Your task to perform on an android device: Search for "razer naga" on target, select the first entry, add it to the cart, then select checkout. Image 0: 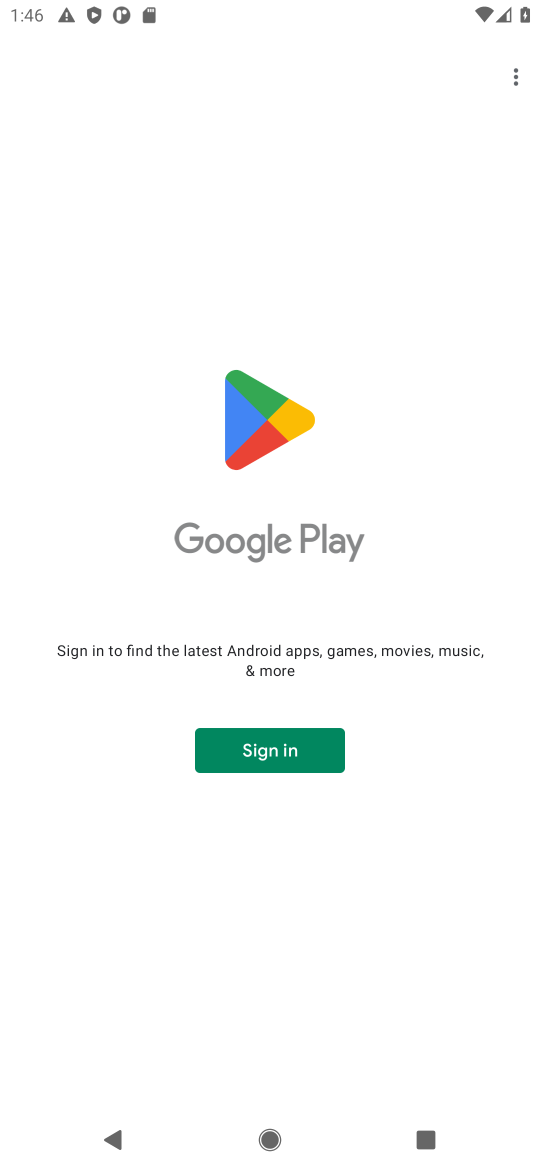
Step 0: press home button
Your task to perform on an android device: Search for "razer naga" on target, select the first entry, add it to the cart, then select checkout. Image 1: 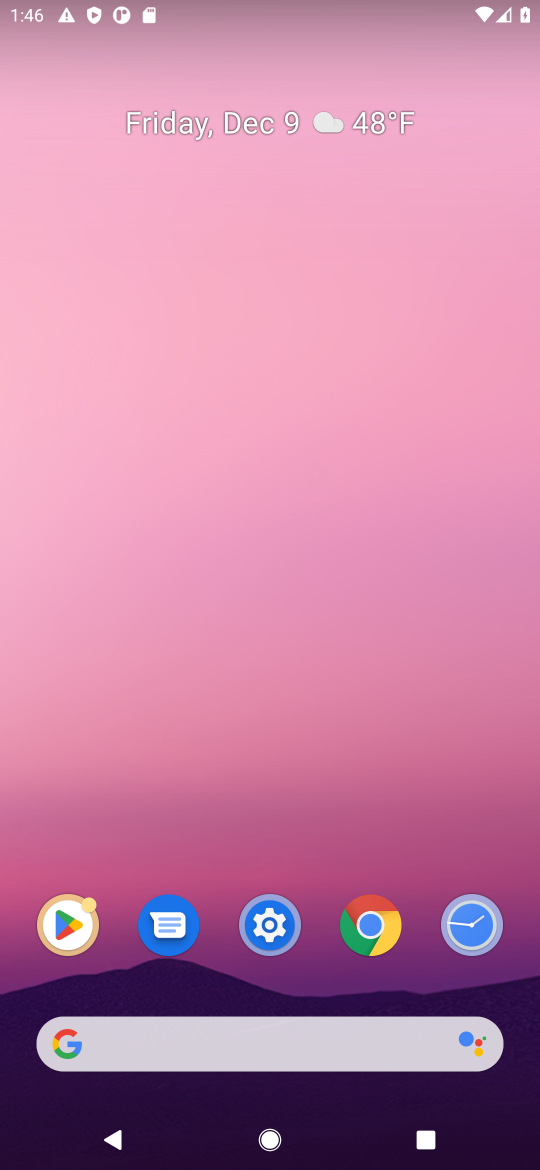
Step 1: click (190, 1026)
Your task to perform on an android device: Search for "razer naga" on target, select the first entry, add it to the cart, then select checkout. Image 2: 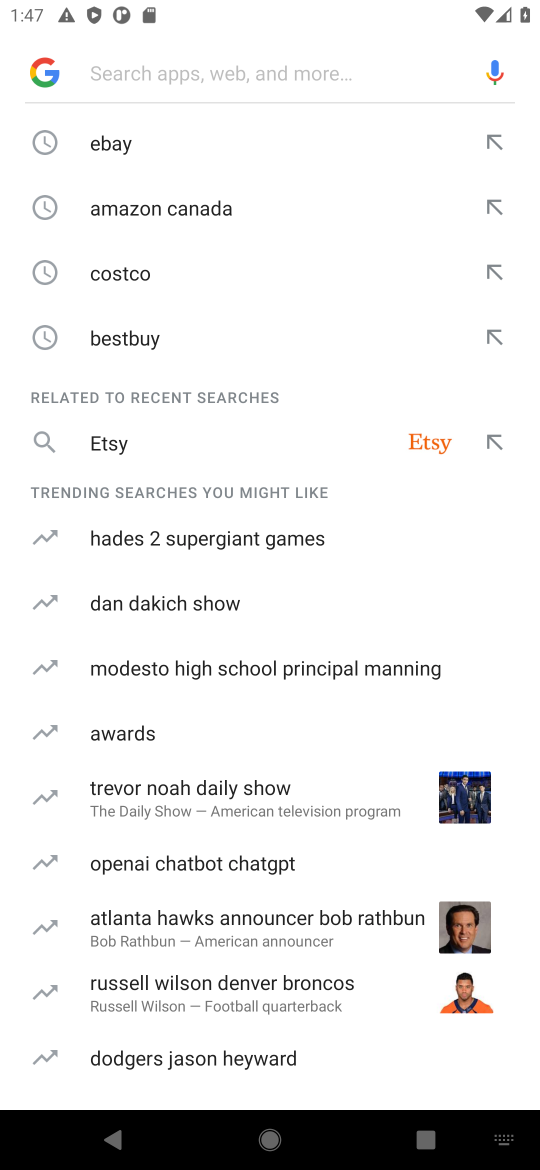
Step 2: type "target"
Your task to perform on an android device: Search for "razer naga" on target, select the first entry, add it to the cart, then select checkout. Image 3: 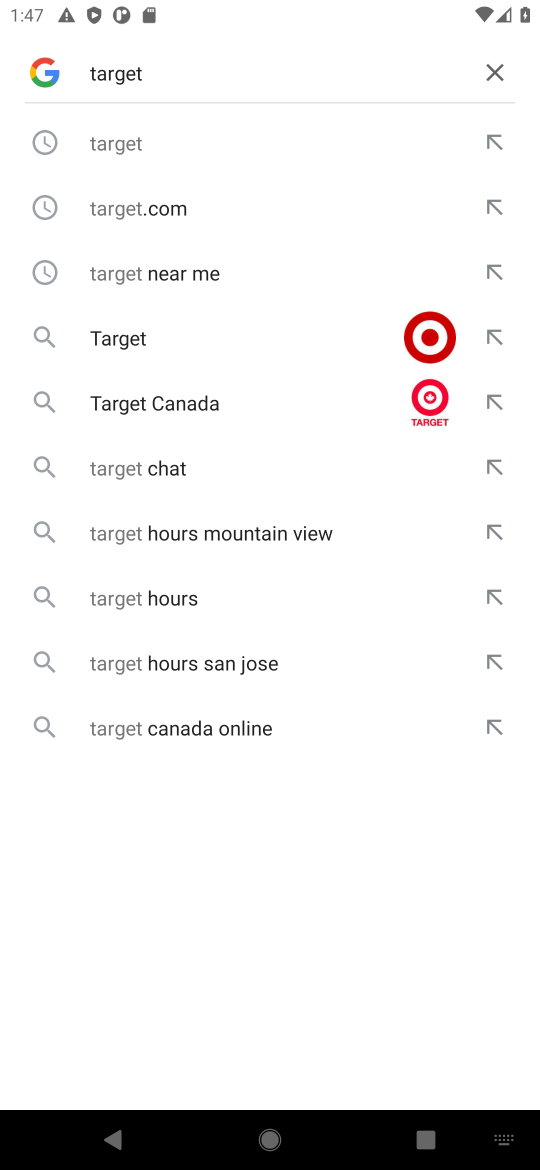
Step 3: click (182, 135)
Your task to perform on an android device: Search for "razer naga" on target, select the first entry, add it to the cart, then select checkout. Image 4: 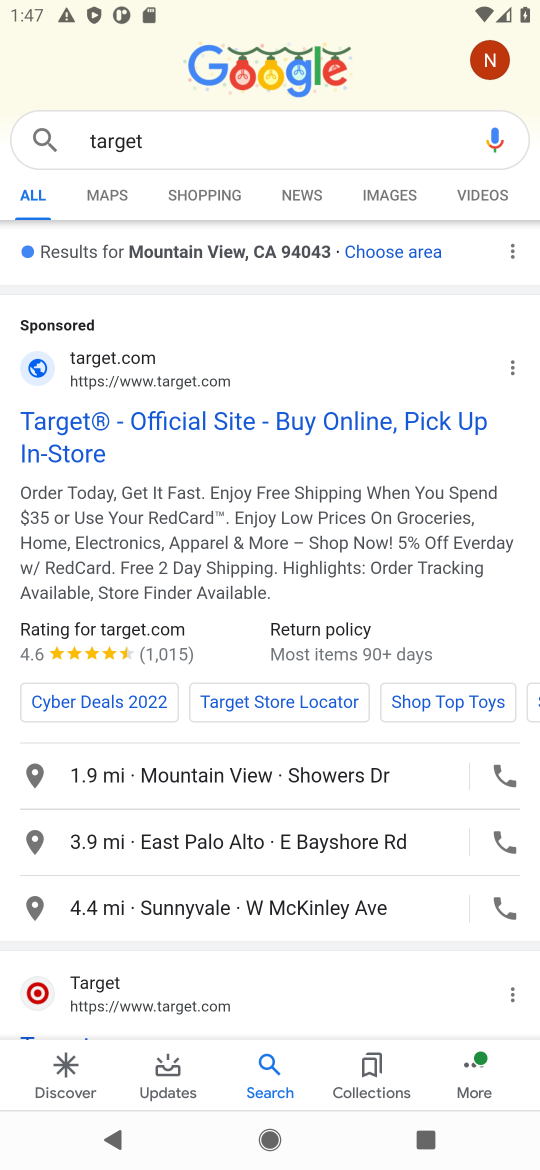
Step 4: click (100, 464)
Your task to perform on an android device: Search for "razer naga" on target, select the first entry, add it to the cart, then select checkout. Image 5: 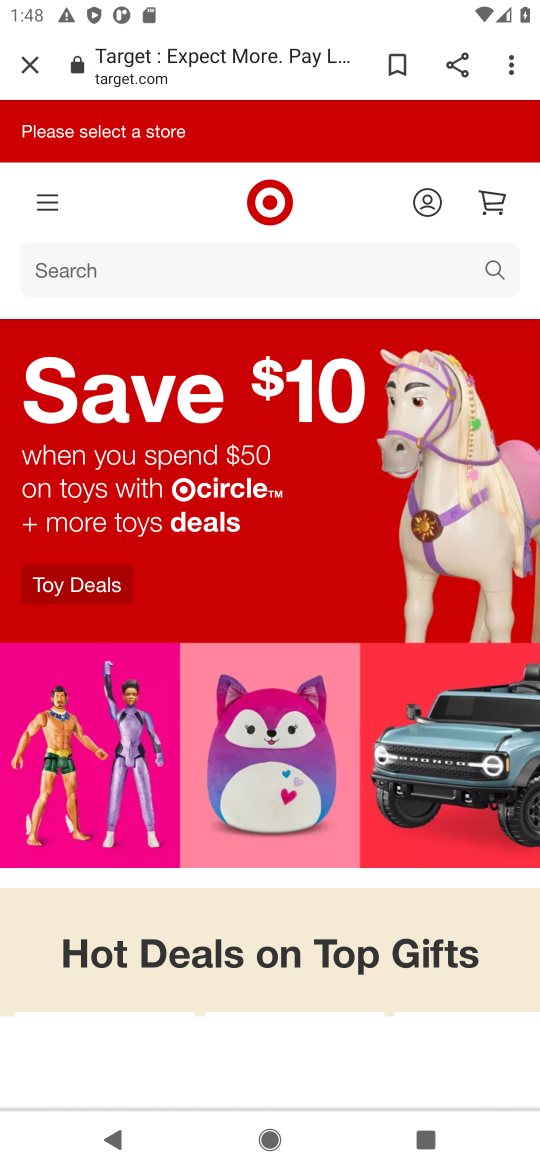
Step 5: click (197, 274)
Your task to perform on an android device: Search for "razer naga" on target, select the first entry, add it to the cart, then select checkout. Image 6: 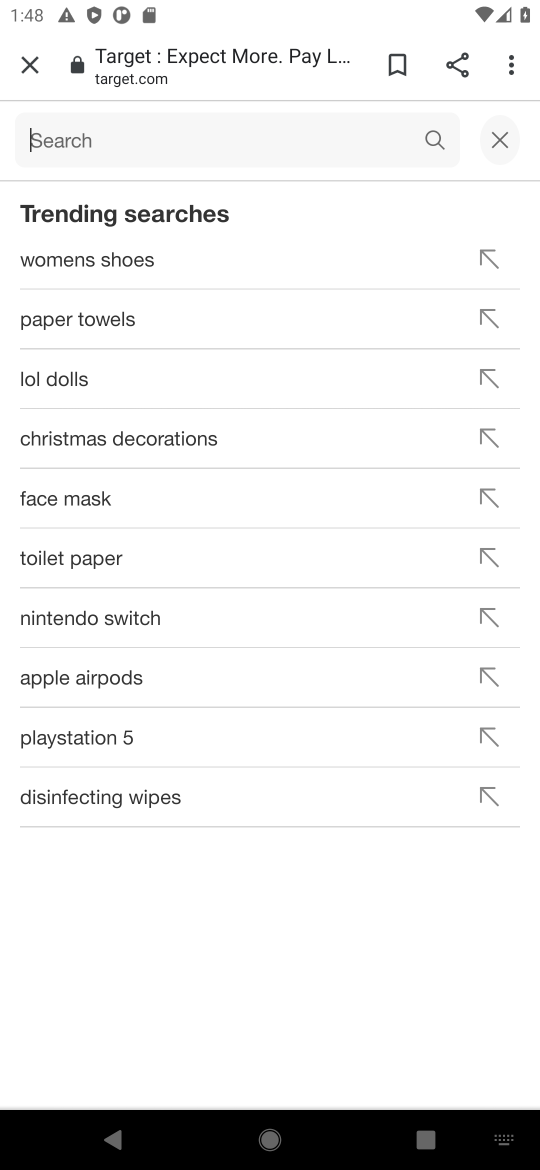
Step 6: type "razer naga"
Your task to perform on an android device: Search for "razer naga" on target, select the first entry, add it to the cart, then select checkout. Image 7: 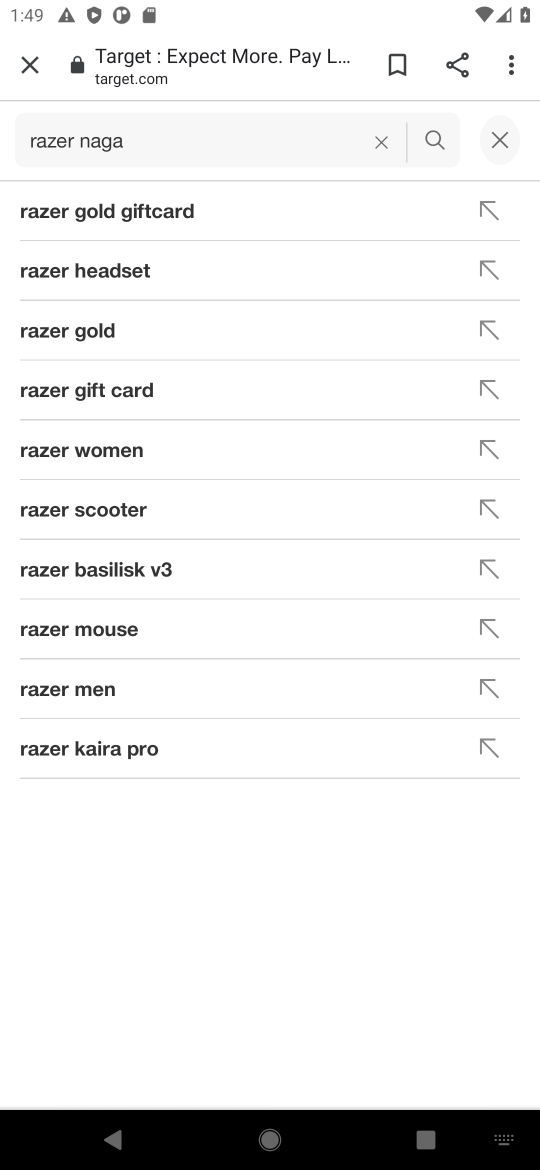
Step 7: click (455, 140)
Your task to perform on an android device: Search for "razer naga" on target, select the first entry, add it to the cart, then select checkout. Image 8: 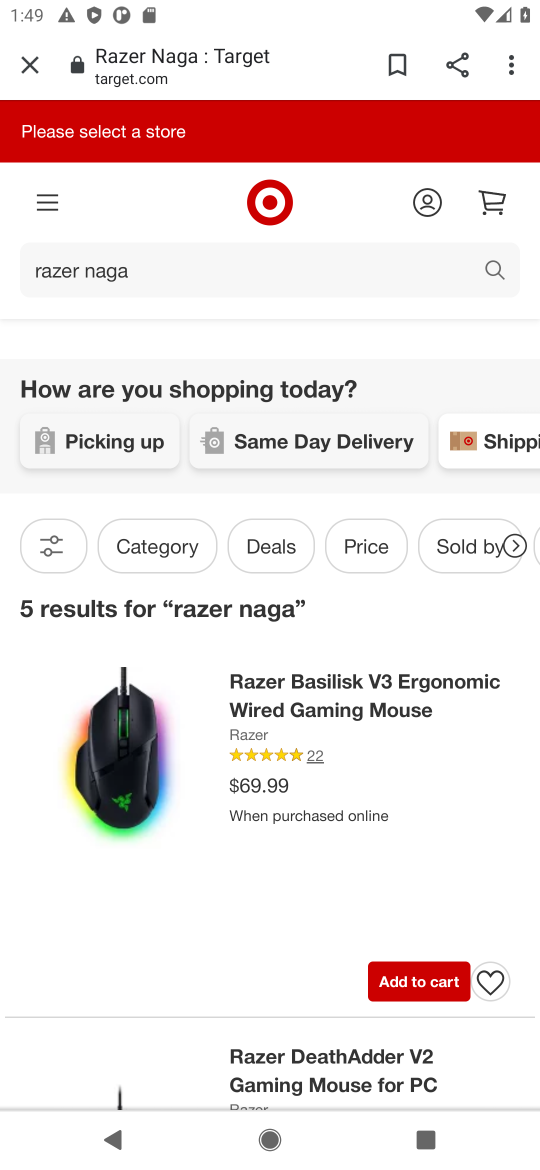
Step 8: task complete